Your task to perform on an android device: change keyboard looks Image 0: 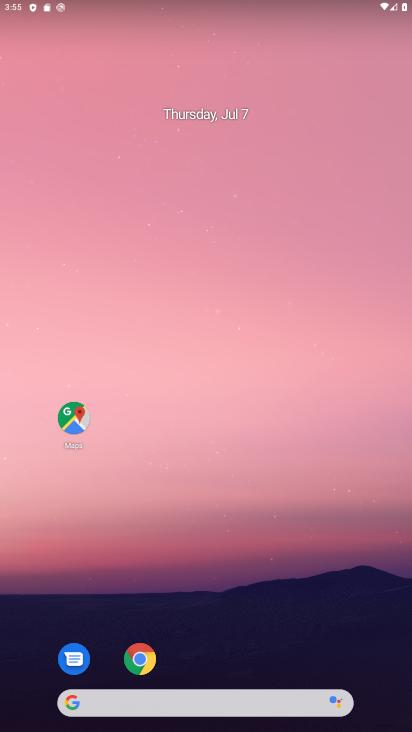
Step 0: drag from (221, 628) to (245, 80)
Your task to perform on an android device: change keyboard looks Image 1: 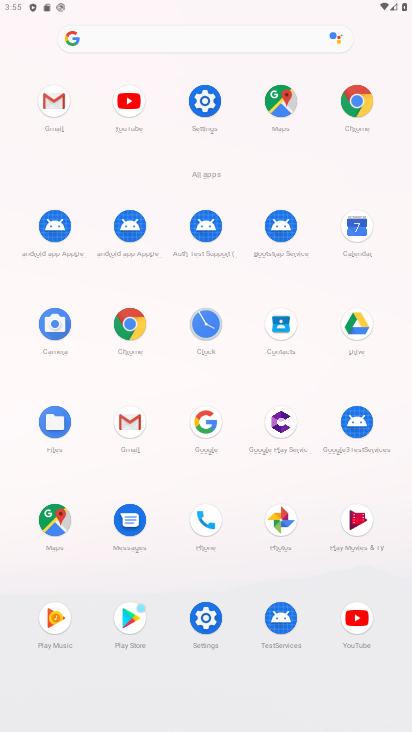
Step 1: click (211, 619)
Your task to perform on an android device: change keyboard looks Image 2: 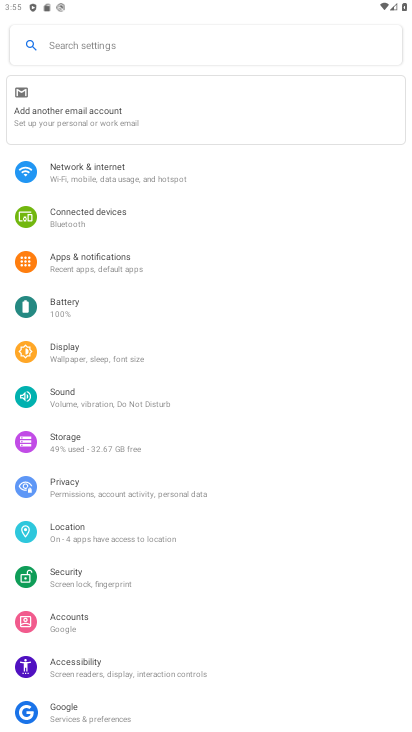
Step 2: drag from (94, 627) to (128, 402)
Your task to perform on an android device: change keyboard looks Image 3: 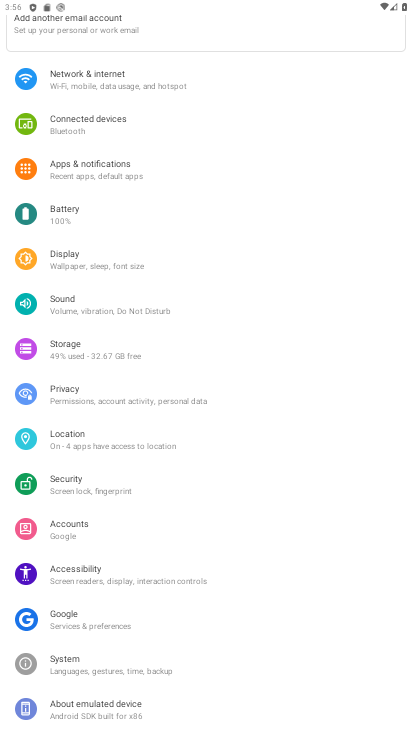
Step 3: click (82, 668)
Your task to perform on an android device: change keyboard looks Image 4: 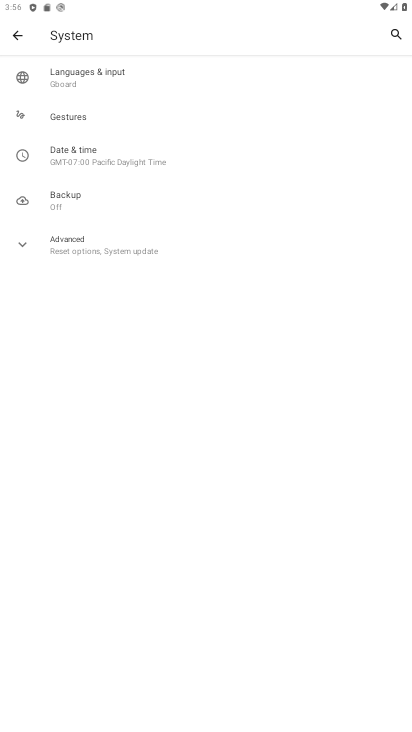
Step 4: click (96, 79)
Your task to perform on an android device: change keyboard looks Image 5: 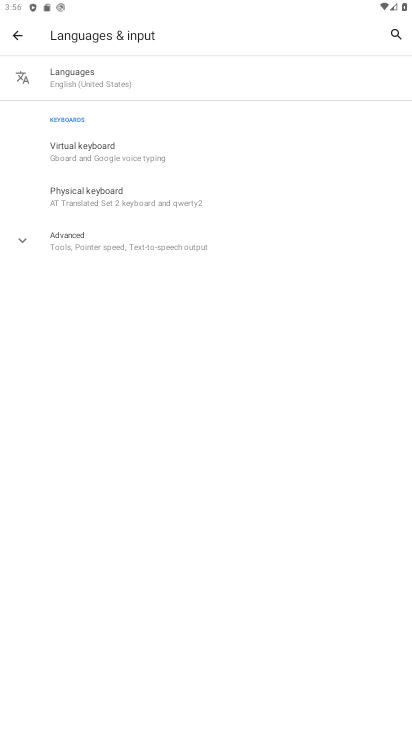
Step 5: click (111, 153)
Your task to perform on an android device: change keyboard looks Image 6: 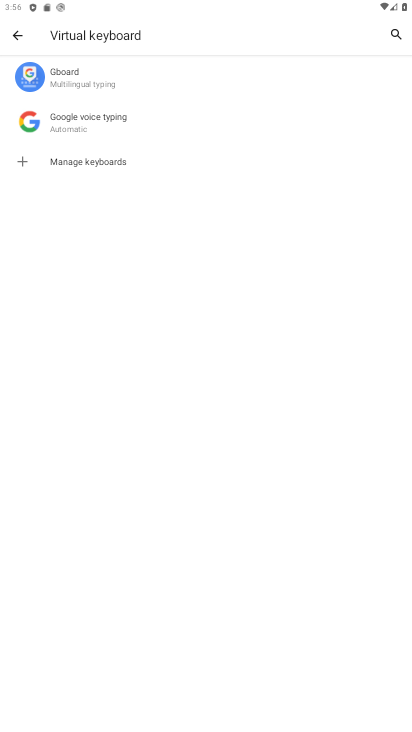
Step 6: click (98, 85)
Your task to perform on an android device: change keyboard looks Image 7: 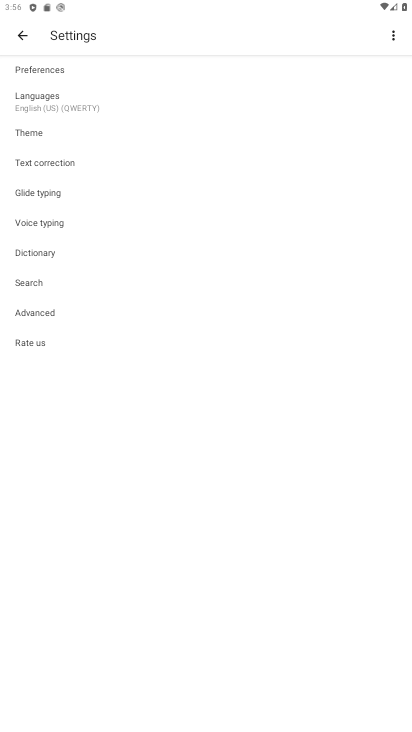
Step 7: click (50, 129)
Your task to perform on an android device: change keyboard looks Image 8: 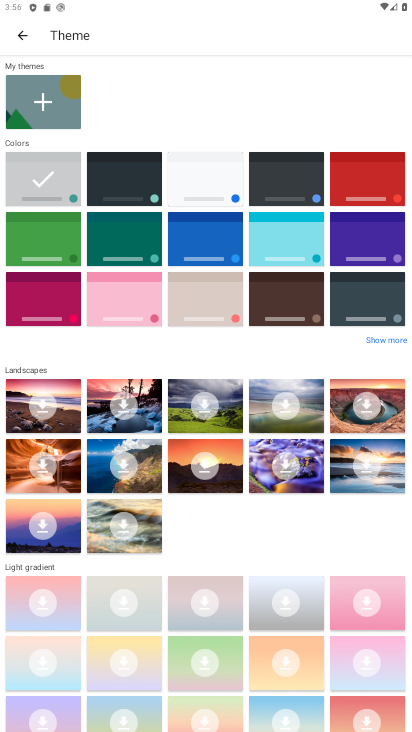
Step 8: click (106, 186)
Your task to perform on an android device: change keyboard looks Image 9: 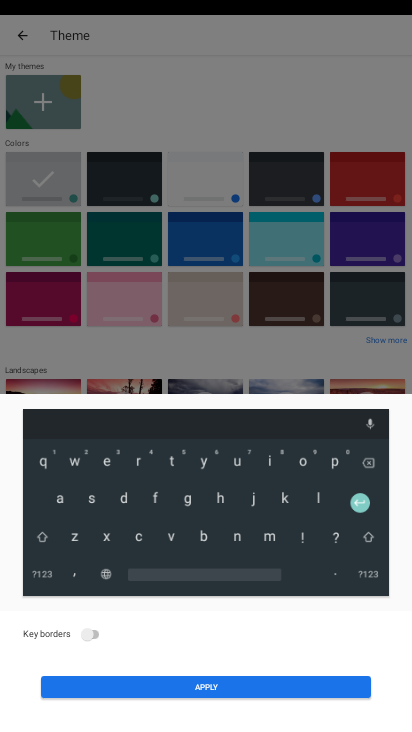
Step 9: click (280, 696)
Your task to perform on an android device: change keyboard looks Image 10: 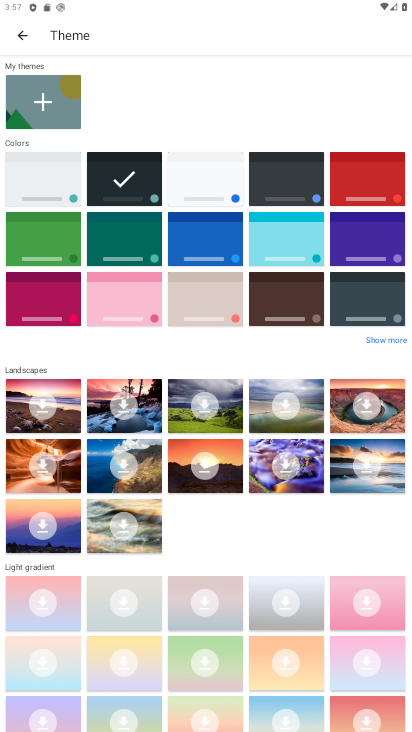
Step 10: task complete